Your task to perform on an android device: Open Wikipedia Image 0: 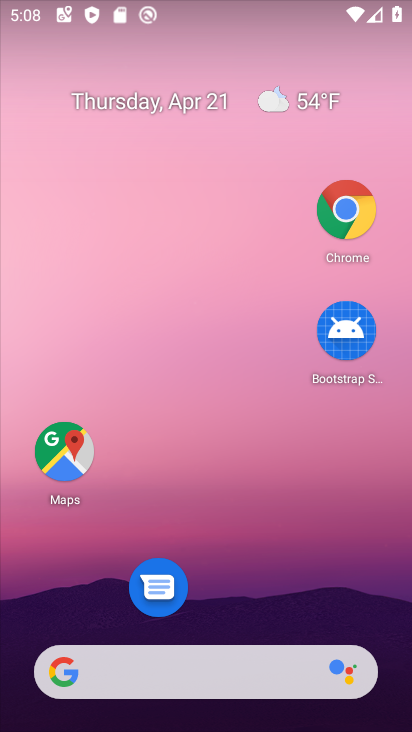
Step 0: drag from (315, 593) to (329, 143)
Your task to perform on an android device: Open Wikipedia Image 1: 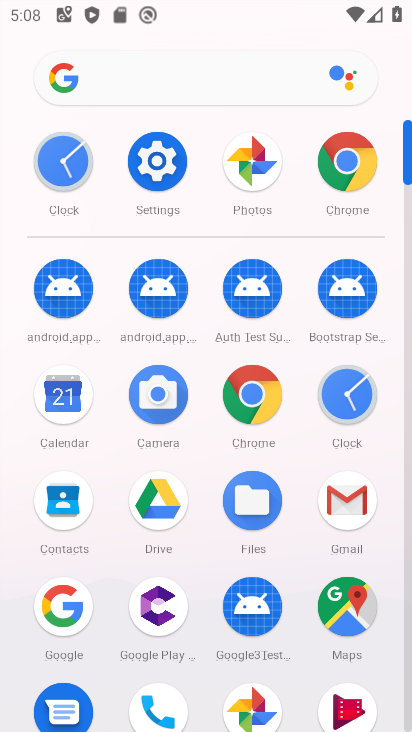
Step 1: click (257, 397)
Your task to perform on an android device: Open Wikipedia Image 2: 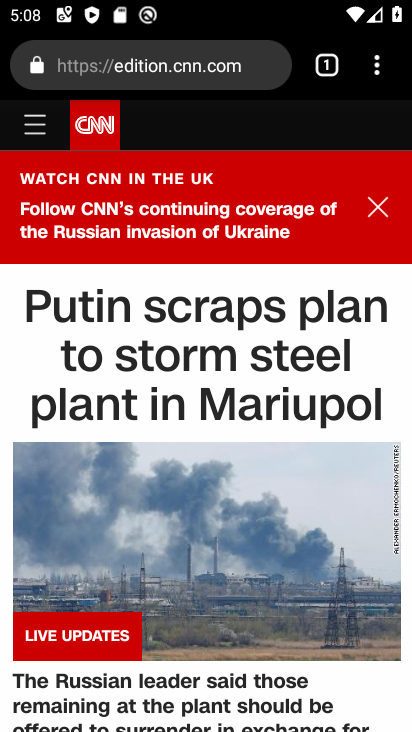
Step 2: drag from (373, 64) to (140, 208)
Your task to perform on an android device: Open Wikipedia Image 3: 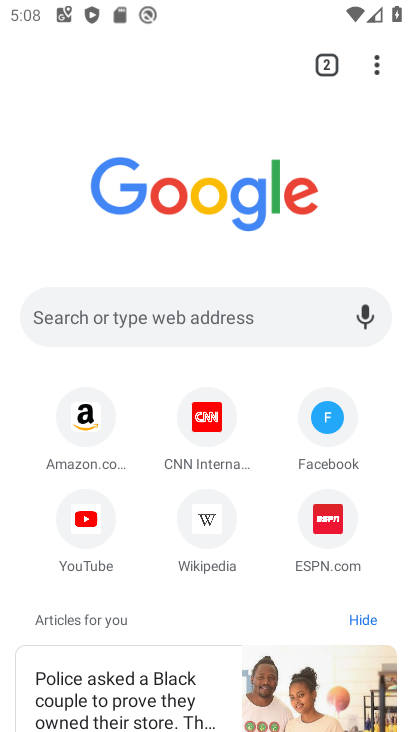
Step 3: click (204, 510)
Your task to perform on an android device: Open Wikipedia Image 4: 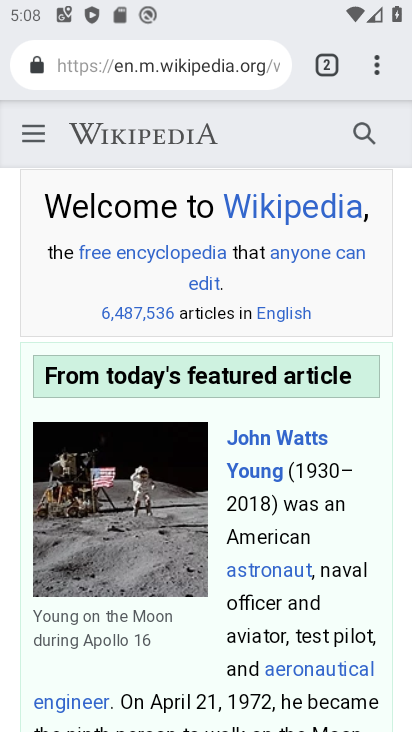
Step 4: task complete